Your task to perform on an android device: Open calendar and show me the first week of next month Image 0: 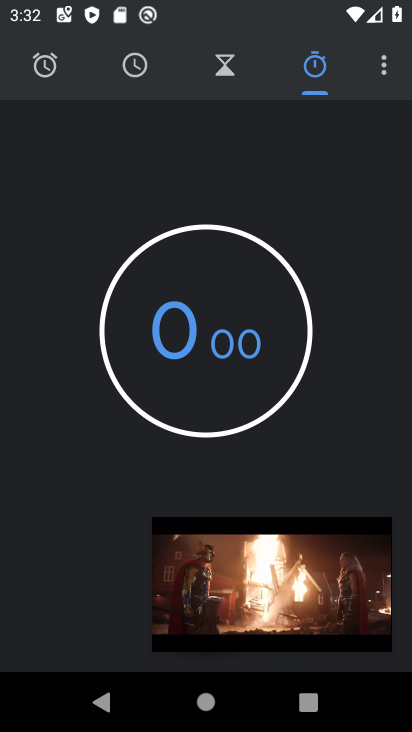
Step 0: click (267, 579)
Your task to perform on an android device: Open calendar and show me the first week of next month Image 1: 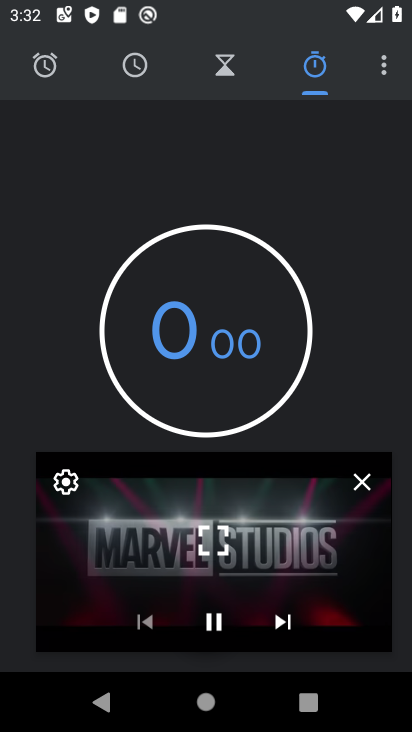
Step 1: click (206, 534)
Your task to perform on an android device: Open calendar and show me the first week of next month Image 2: 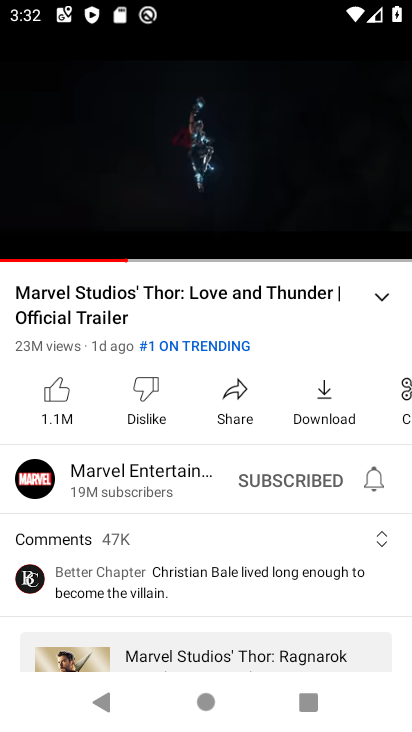
Step 2: click (221, 153)
Your task to perform on an android device: Open calendar and show me the first week of next month Image 3: 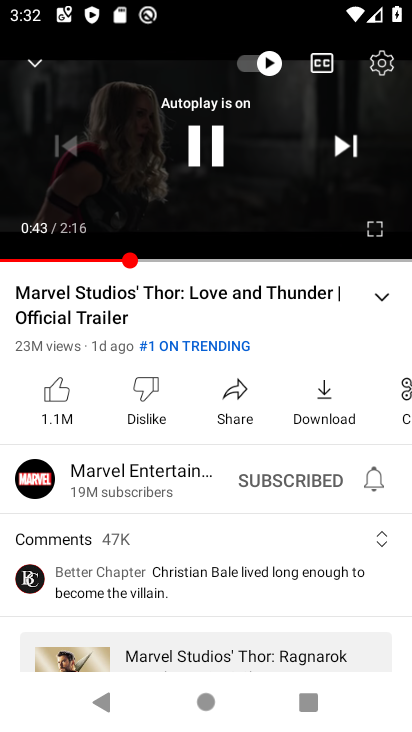
Step 3: click (196, 140)
Your task to perform on an android device: Open calendar and show me the first week of next month Image 4: 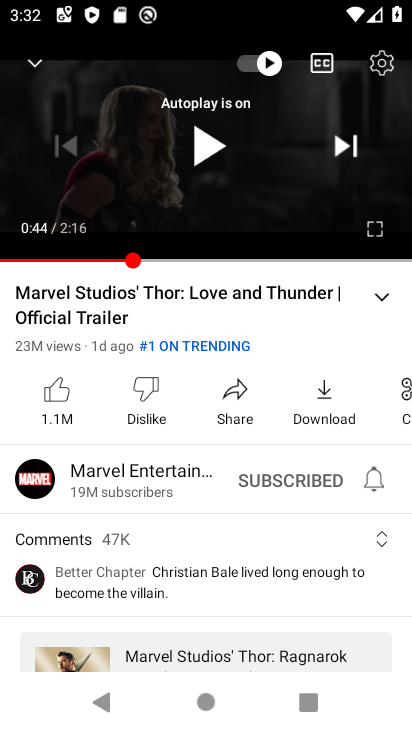
Step 4: press home button
Your task to perform on an android device: Open calendar and show me the first week of next month Image 5: 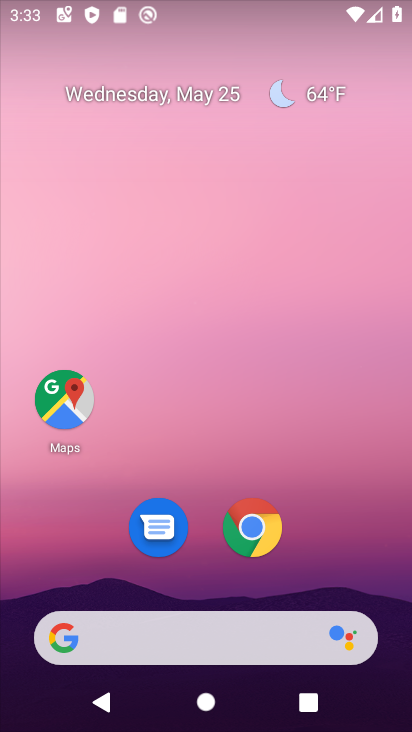
Step 5: drag from (108, 561) to (231, 21)
Your task to perform on an android device: Open calendar and show me the first week of next month Image 6: 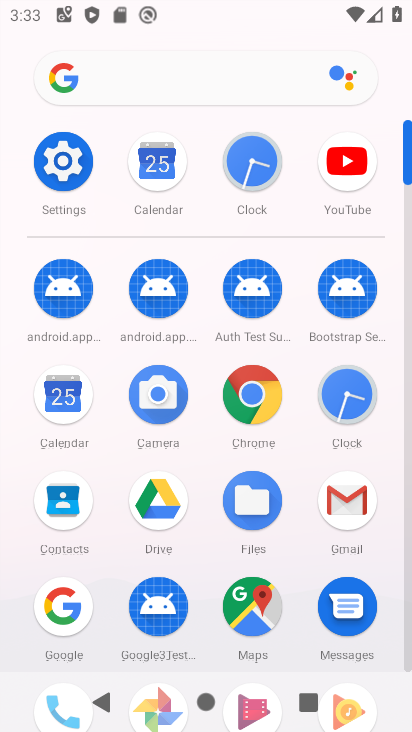
Step 6: click (63, 401)
Your task to perform on an android device: Open calendar and show me the first week of next month Image 7: 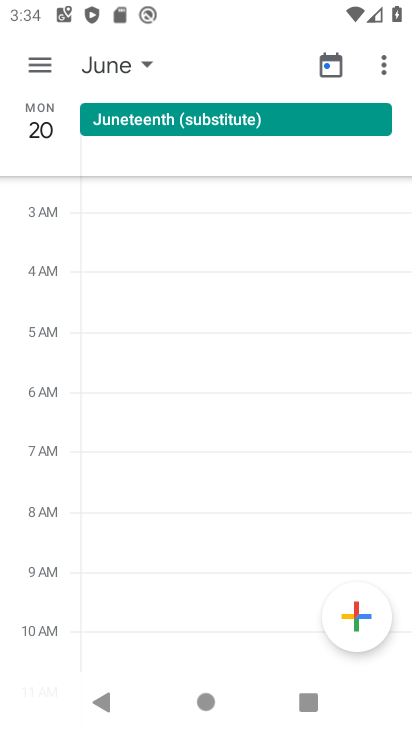
Step 7: click (36, 59)
Your task to perform on an android device: Open calendar and show me the first week of next month Image 8: 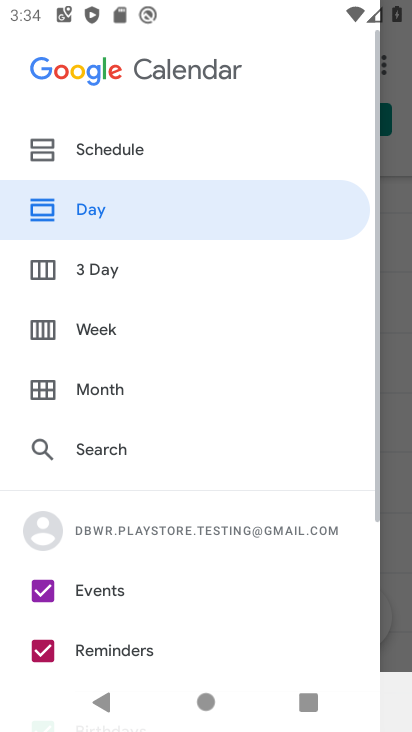
Step 8: click (142, 154)
Your task to perform on an android device: Open calendar and show me the first week of next month Image 9: 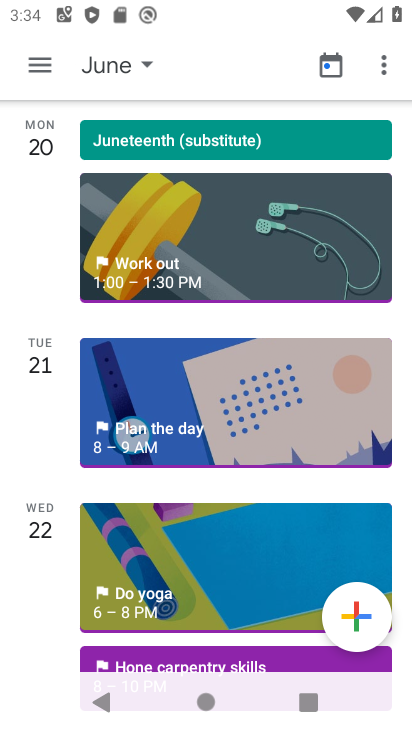
Step 9: click (122, 68)
Your task to perform on an android device: Open calendar and show me the first week of next month Image 10: 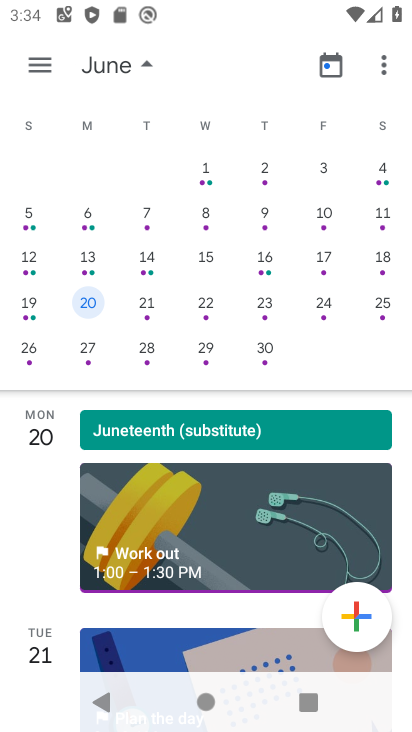
Step 10: click (215, 167)
Your task to perform on an android device: Open calendar and show me the first week of next month Image 11: 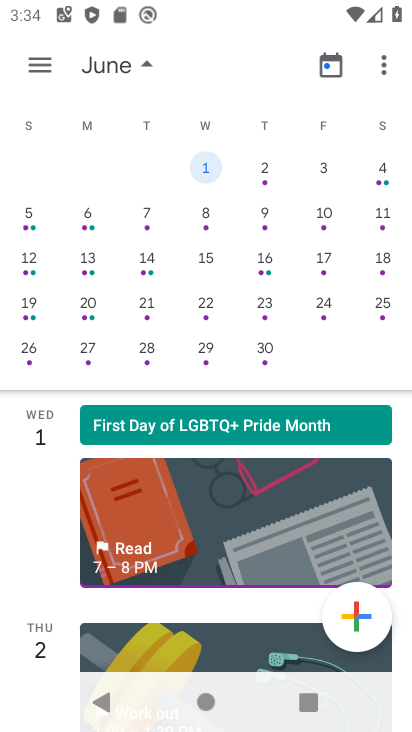
Step 11: task complete